Your task to perform on an android device: Open my contact list Image 0: 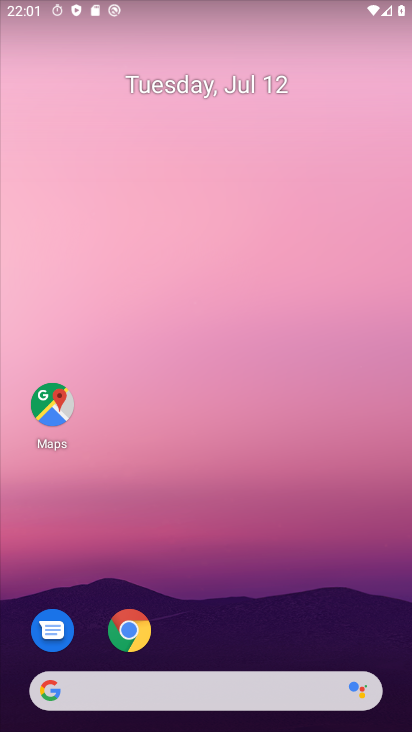
Step 0: drag from (192, 644) to (255, 121)
Your task to perform on an android device: Open my contact list Image 1: 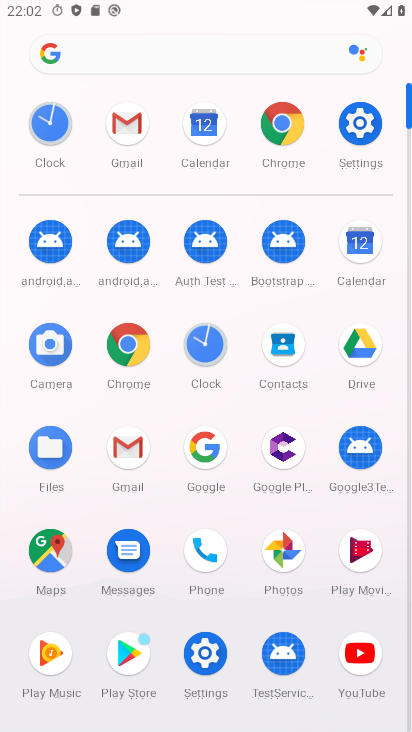
Step 1: click (270, 338)
Your task to perform on an android device: Open my contact list Image 2: 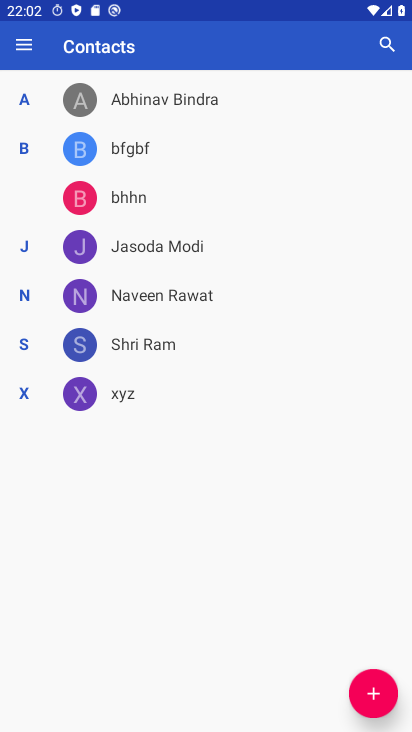
Step 2: task complete